Your task to perform on an android device: toggle javascript in the chrome app Image 0: 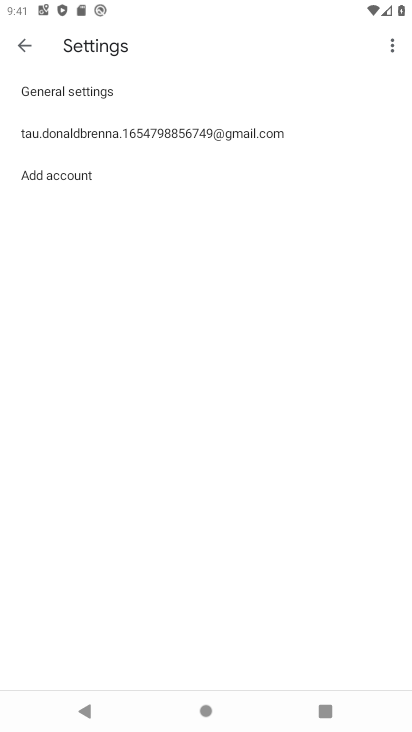
Step 0: press home button
Your task to perform on an android device: toggle javascript in the chrome app Image 1: 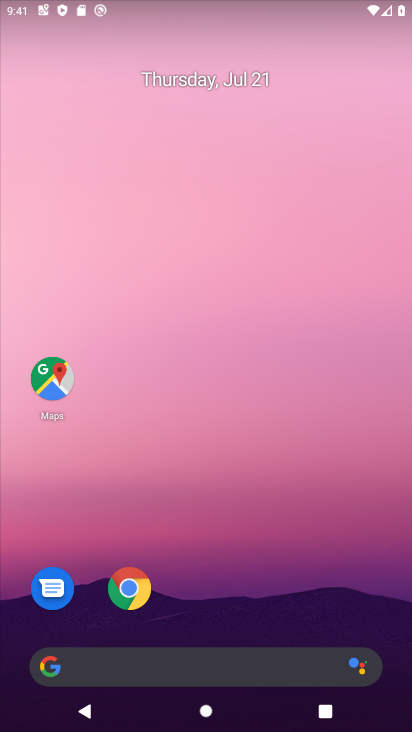
Step 1: click (135, 588)
Your task to perform on an android device: toggle javascript in the chrome app Image 2: 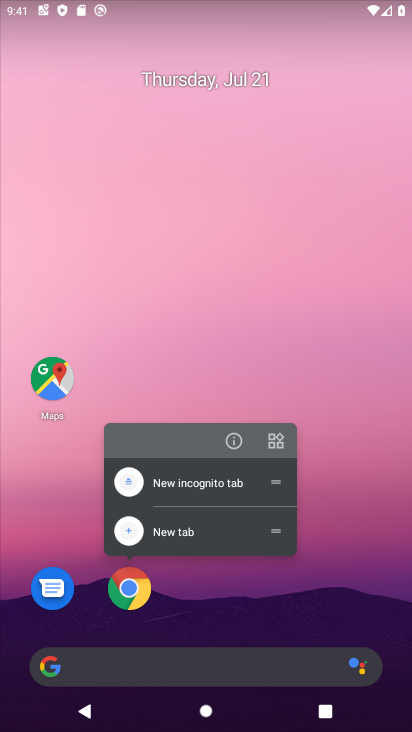
Step 2: click (135, 588)
Your task to perform on an android device: toggle javascript in the chrome app Image 3: 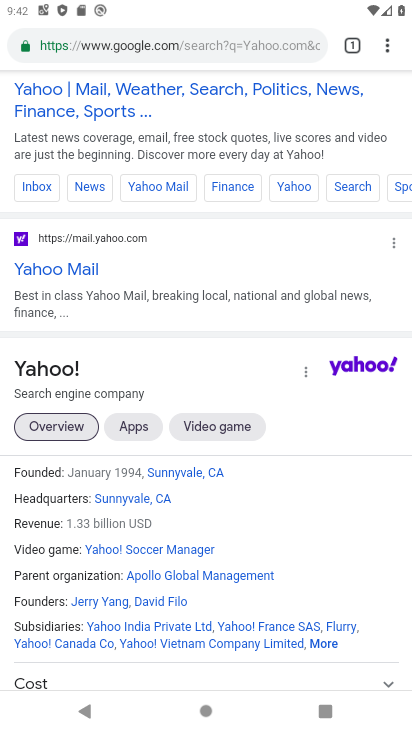
Step 3: click (383, 43)
Your task to perform on an android device: toggle javascript in the chrome app Image 4: 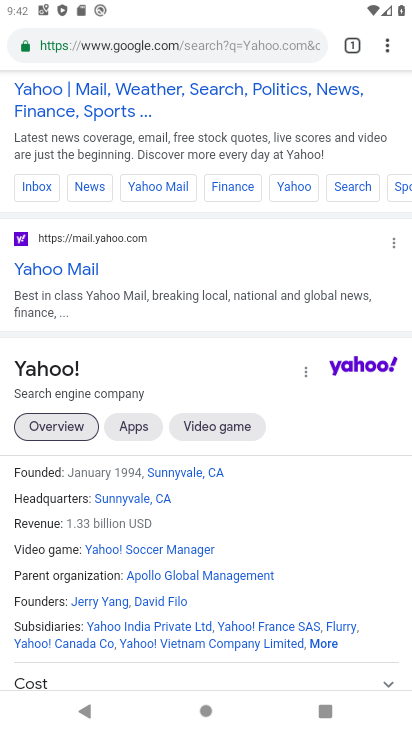
Step 4: click (385, 43)
Your task to perform on an android device: toggle javascript in the chrome app Image 5: 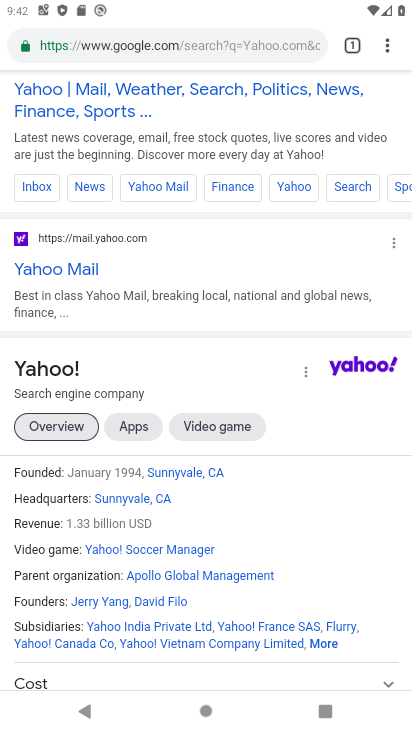
Step 5: click (385, 43)
Your task to perform on an android device: toggle javascript in the chrome app Image 6: 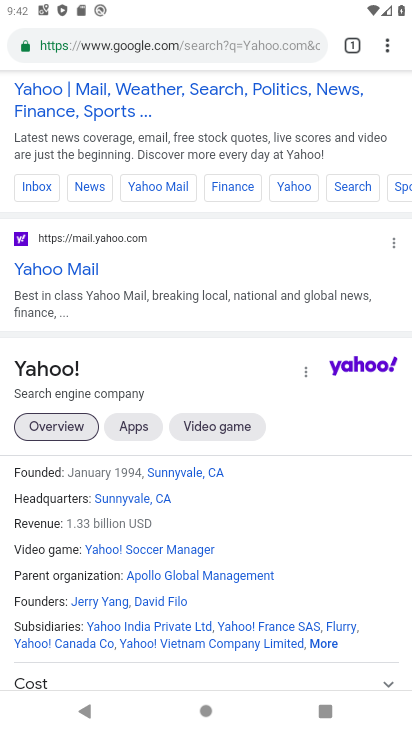
Step 6: click (385, 43)
Your task to perform on an android device: toggle javascript in the chrome app Image 7: 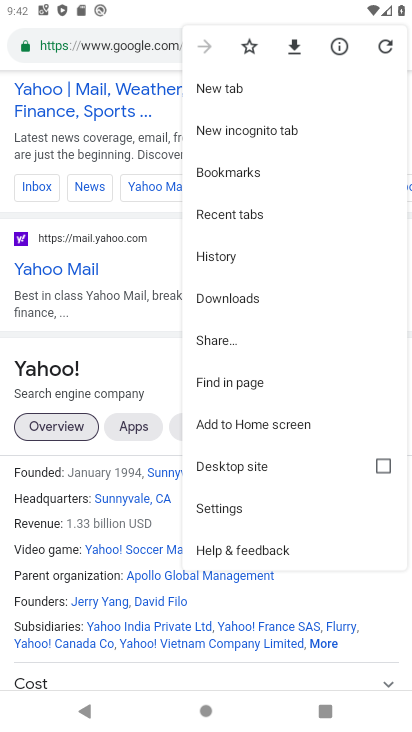
Step 7: click (228, 503)
Your task to perform on an android device: toggle javascript in the chrome app Image 8: 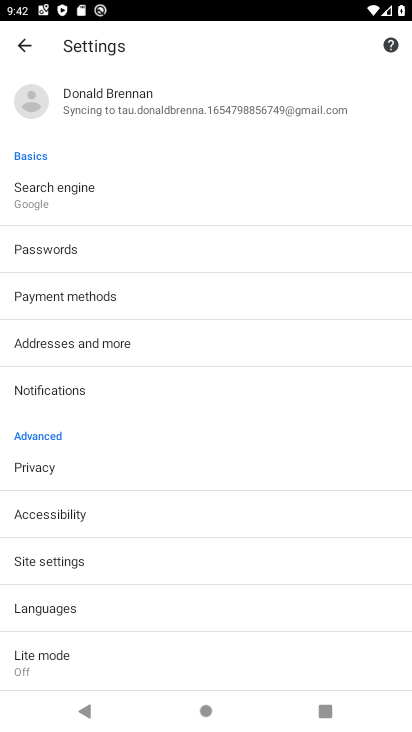
Step 8: click (65, 569)
Your task to perform on an android device: toggle javascript in the chrome app Image 9: 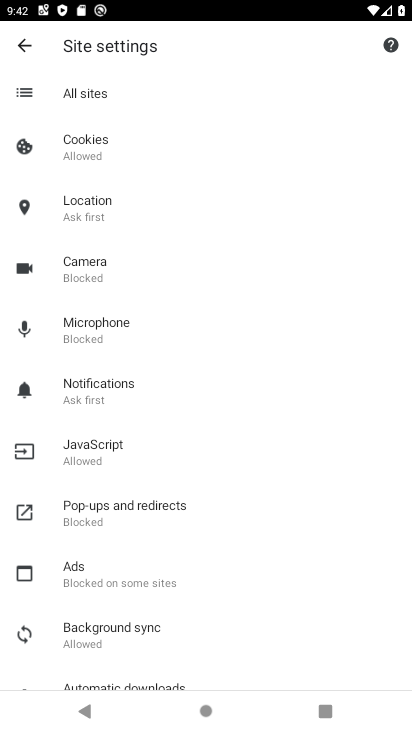
Step 9: click (84, 453)
Your task to perform on an android device: toggle javascript in the chrome app Image 10: 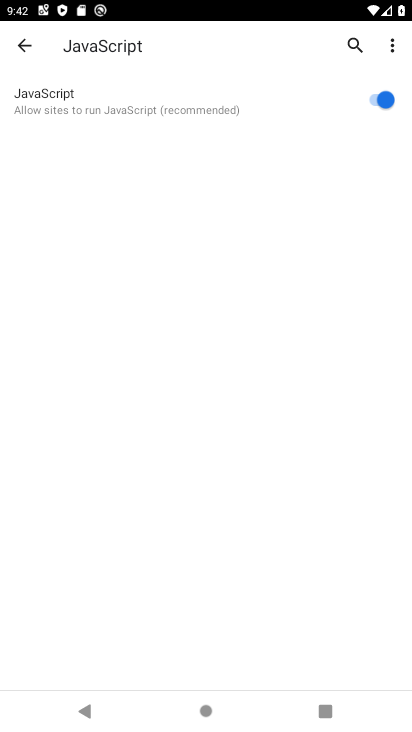
Step 10: click (378, 94)
Your task to perform on an android device: toggle javascript in the chrome app Image 11: 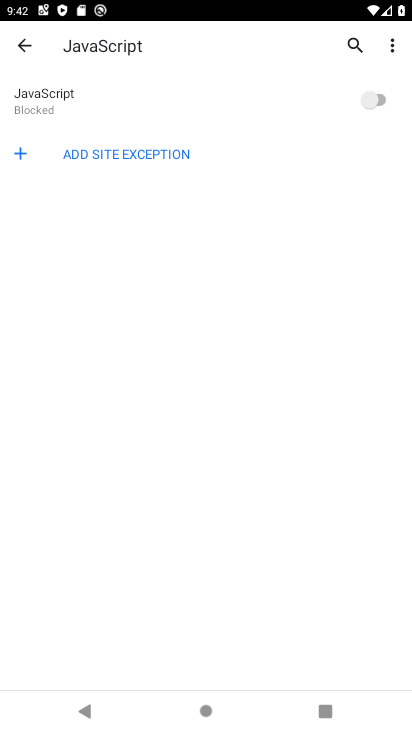
Step 11: task complete